Your task to perform on an android device: turn on showing notifications on the lock screen Image 0: 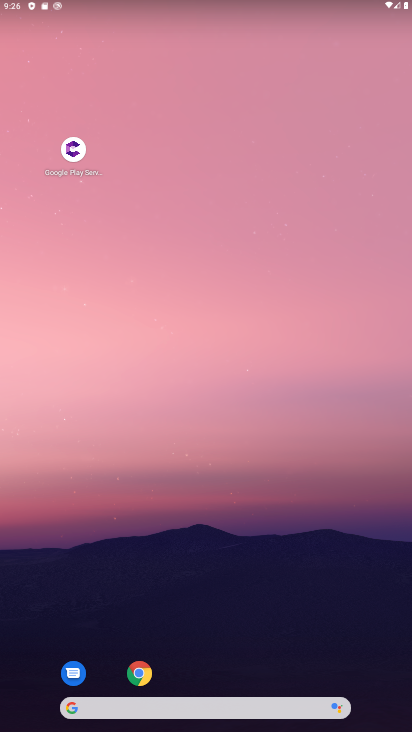
Step 0: drag from (232, 683) to (335, 98)
Your task to perform on an android device: turn on showing notifications on the lock screen Image 1: 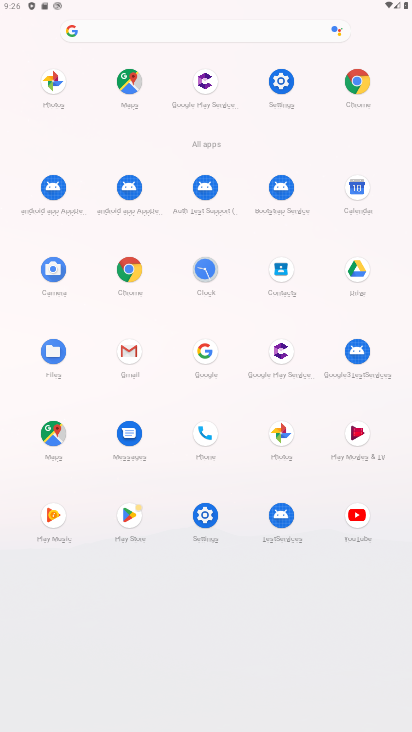
Step 1: click (213, 516)
Your task to perform on an android device: turn on showing notifications on the lock screen Image 2: 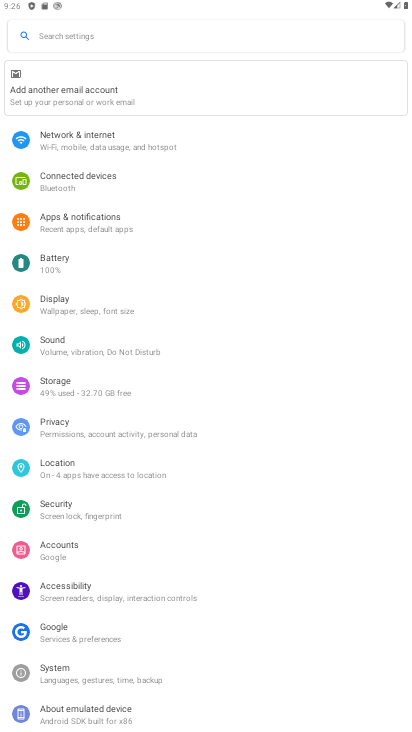
Step 2: click (118, 223)
Your task to perform on an android device: turn on showing notifications on the lock screen Image 3: 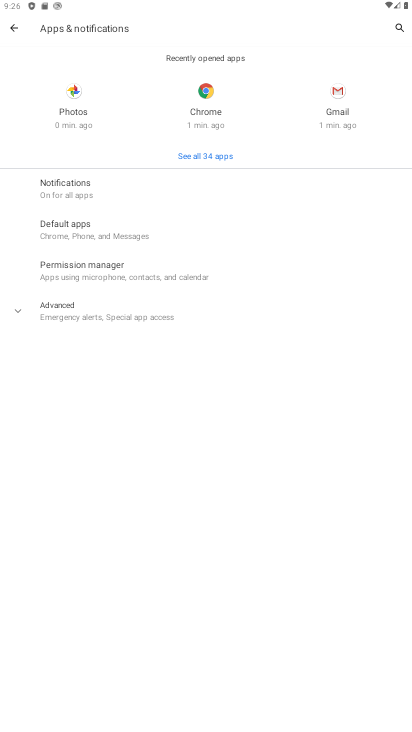
Step 3: click (76, 199)
Your task to perform on an android device: turn on showing notifications on the lock screen Image 4: 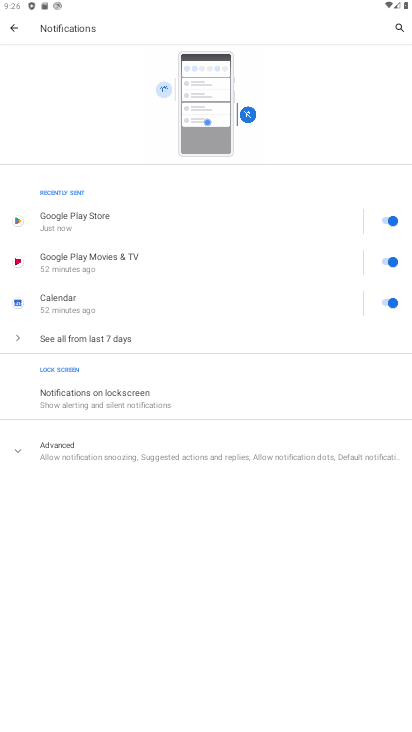
Step 4: click (177, 407)
Your task to perform on an android device: turn on showing notifications on the lock screen Image 5: 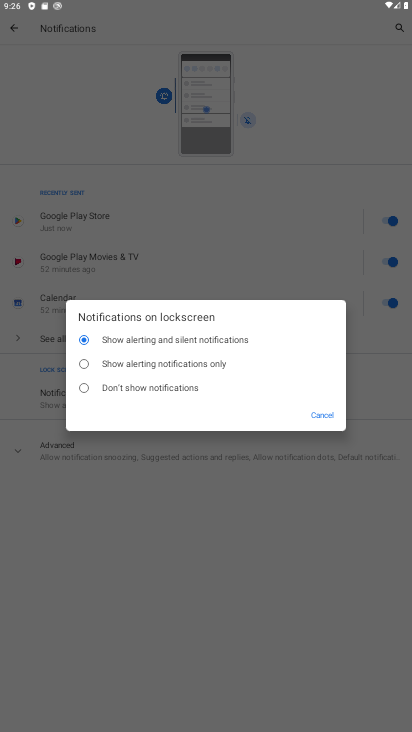
Step 5: task complete